Your task to perform on an android device: find photos in the google photos app Image 0: 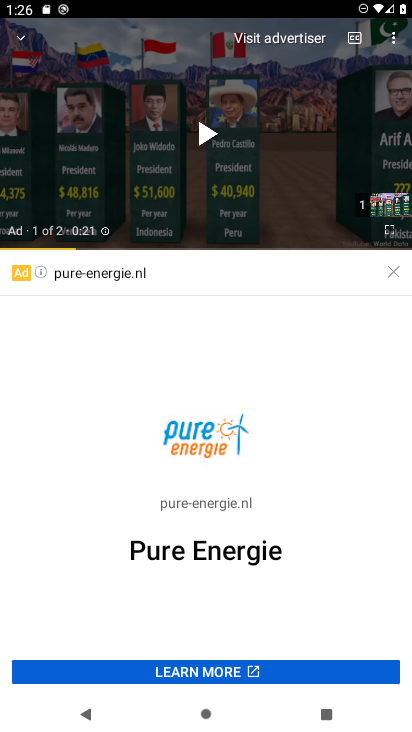
Step 0: press home button
Your task to perform on an android device: find photos in the google photos app Image 1: 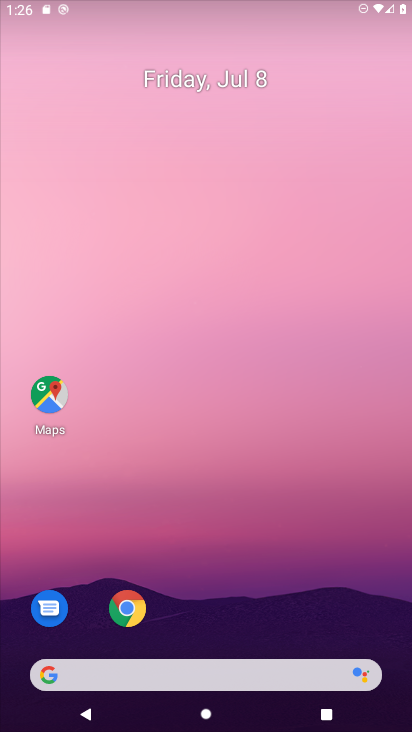
Step 1: drag from (279, 626) to (331, 258)
Your task to perform on an android device: find photos in the google photos app Image 2: 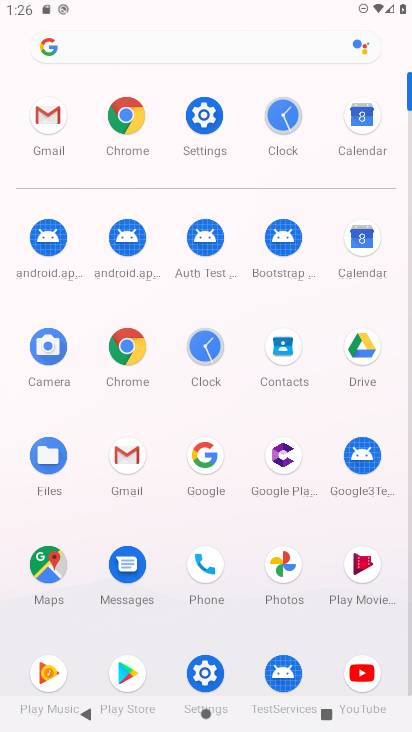
Step 2: click (272, 578)
Your task to perform on an android device: find photos in the google photos app Image 3: 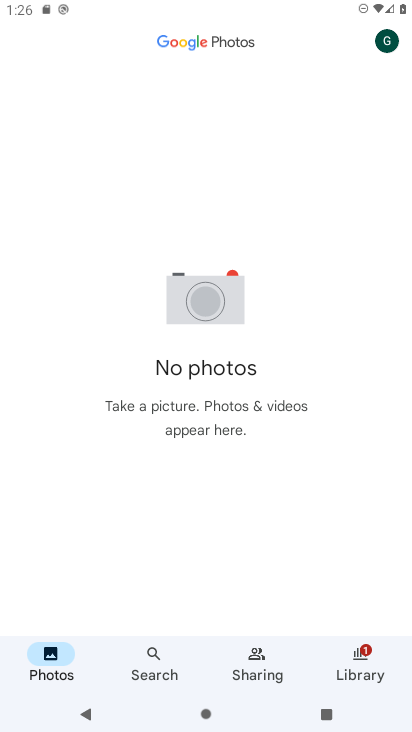
Step 3: task complete